Your task to perform on an android device: turn off picture-in-picture Image 0: 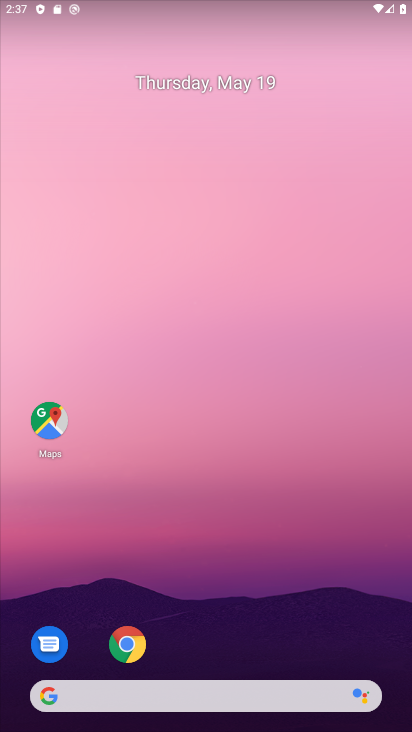
Step 0: drag from (243, 294) to (252, 69)
Your task to perform on an android device: turn off picture-in-picture Image 1: 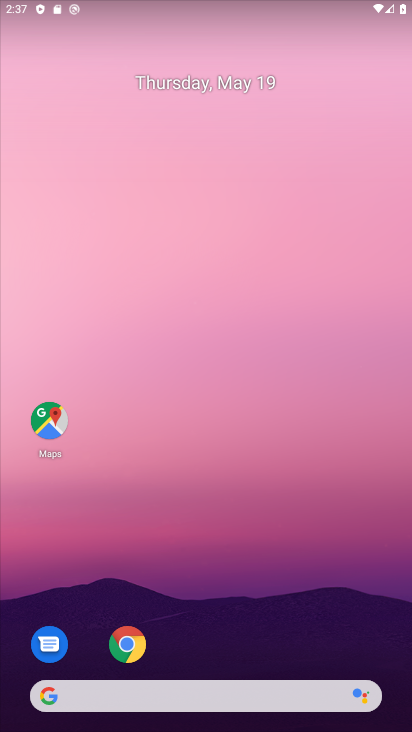
Step 1: drag from (222, 608) to (230, 116)
Your task to perform on an android device: turn off picture-in-picture Image 2: 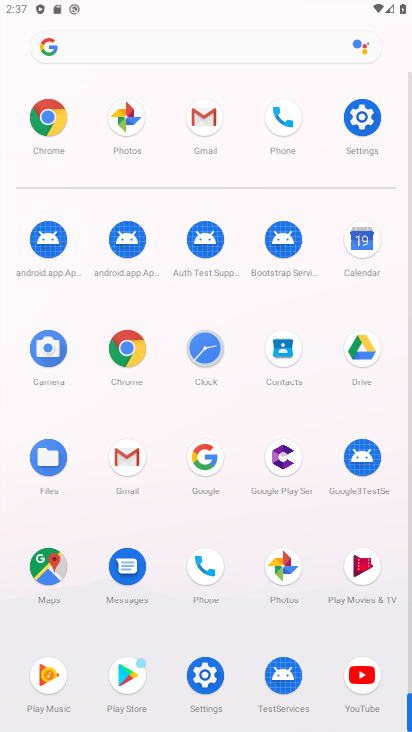
Step 2: click (370, 109)
Your task to perform on an android device: turn off picture-in-picture Image 3: 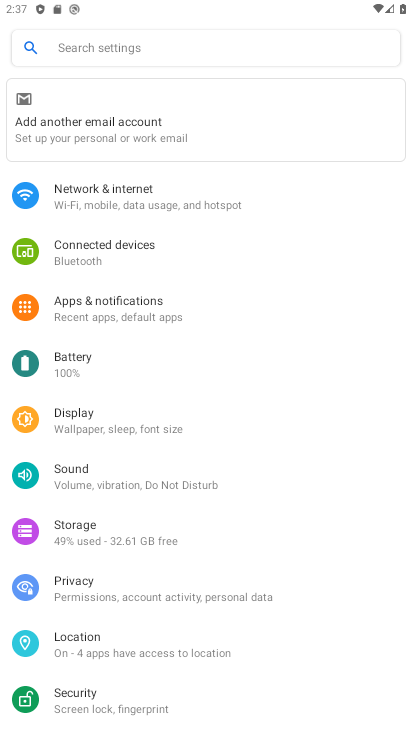
Step 3: click (110, 321)
Your task to perform on an android device: turn off picture-in-picture Image 4: 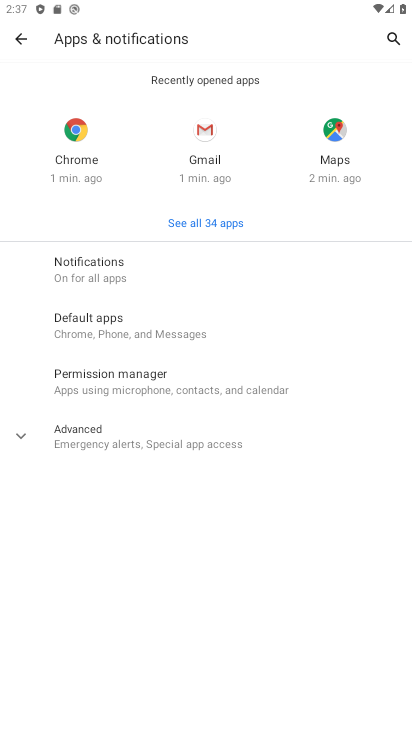
Step 4: click (152, 438)
Your task to perform on an android device: turn off picture-in-picture Image 5: 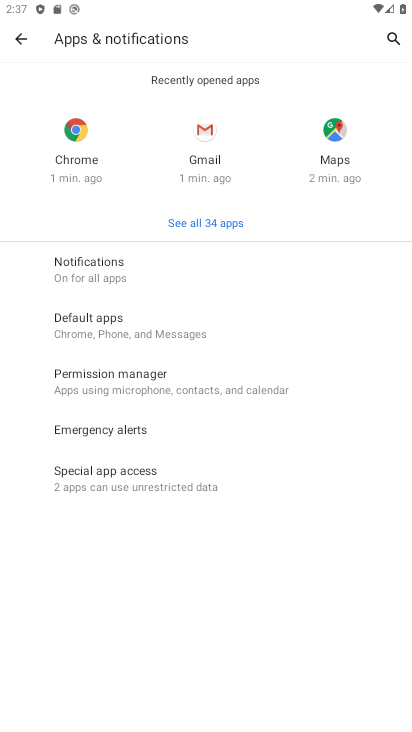
Step 5: click (129, 480)
Your task to perform on an android device: turn off picture-in-picture Image 6: 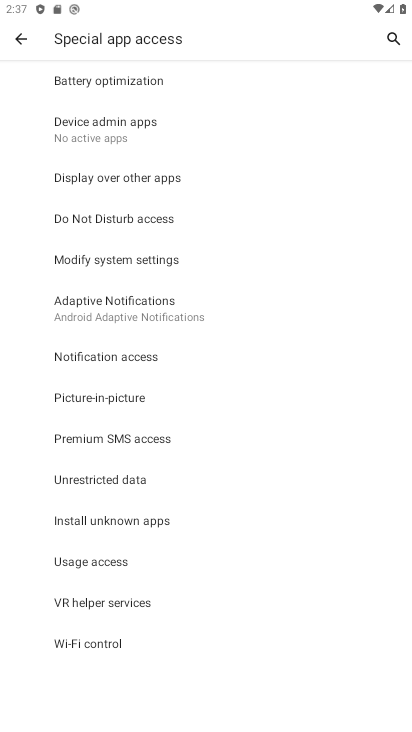
Step 6: click (133, 389)
Your task to perform on an android device: turn off picture-in-picture Image 7: 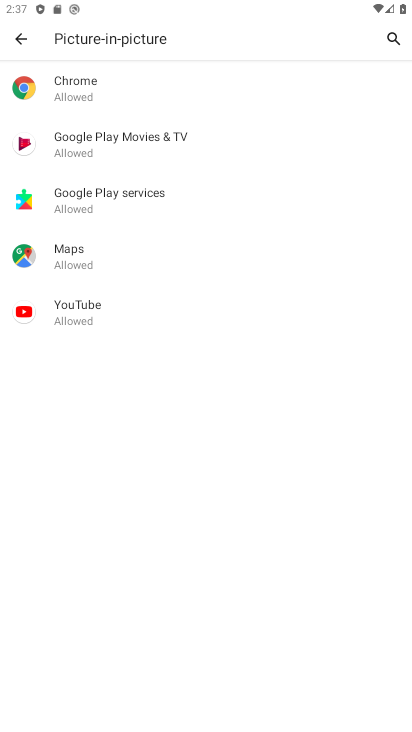
Step 7: click (119, 305)
Your task to perform on an android device: turn off picture-in-picture Image 8: 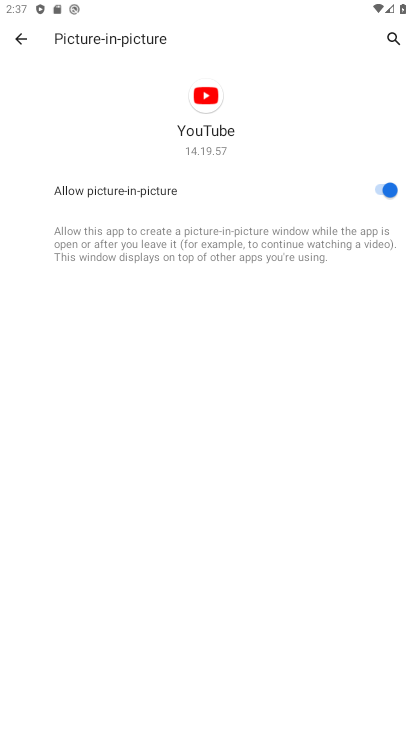
Step 8: click (382, 176)
Your task to perform on an android device: turn off picture-in-picture Image 9: 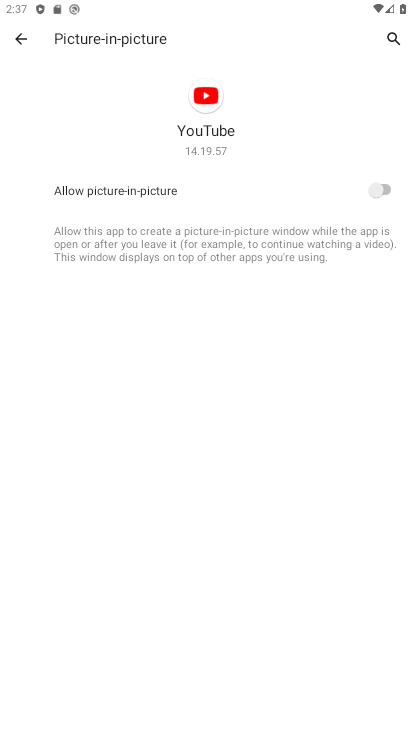
Step 9: task complete